Your task to perform on an android device: See recent photos Image 0: 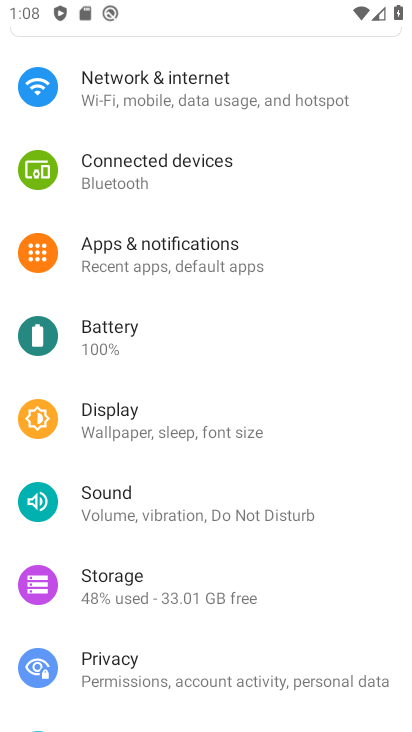
Step 0: press home button
Your task to perform on an android device: See recent photos Image 1: 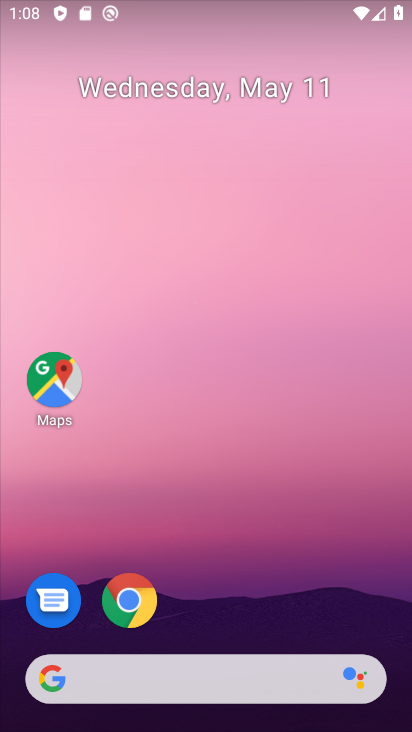
Step 1: drag from (248, 618) to (250, 282)
Your task to perform on an android device: See recent photos Image 2: 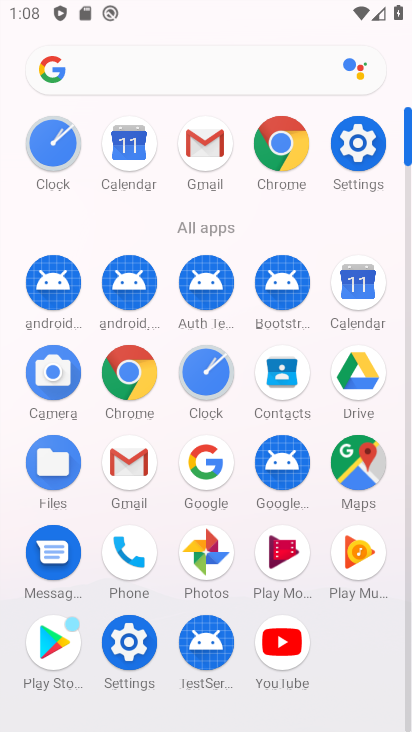
Step 2: click (206, 554)
Your task to perform on an android device: See recent photos Image 3: 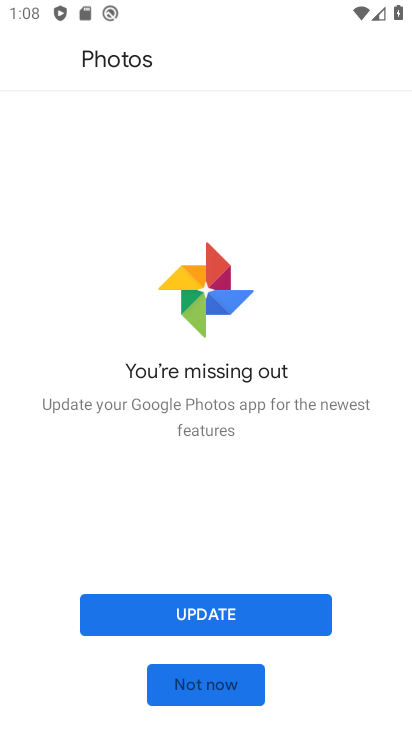
Step 3: click (196, 693)
Your task to perform on an android device: See recent photos Image 4: 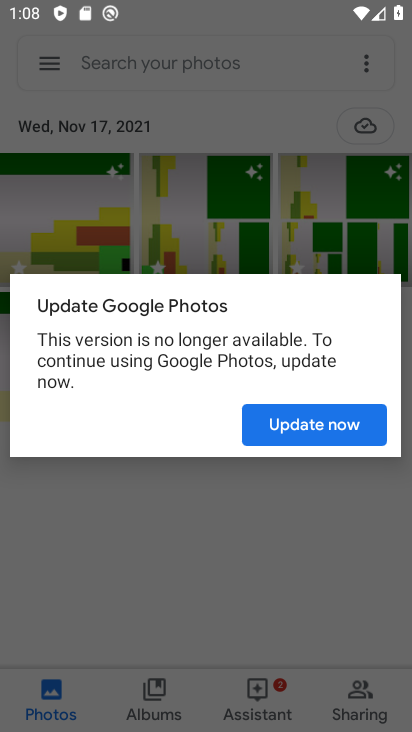
Step 4: click (337, 428)
Your task to perform on an android device: See recent photos Image 5: 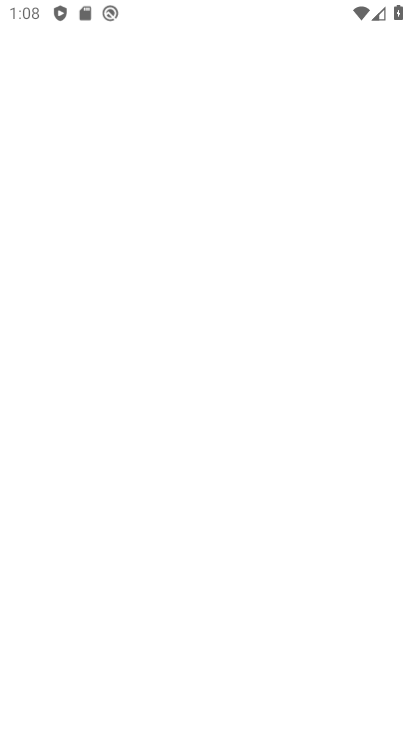
Step 5: press back button
Your task to perform on an android device: See recent photos Image 6: 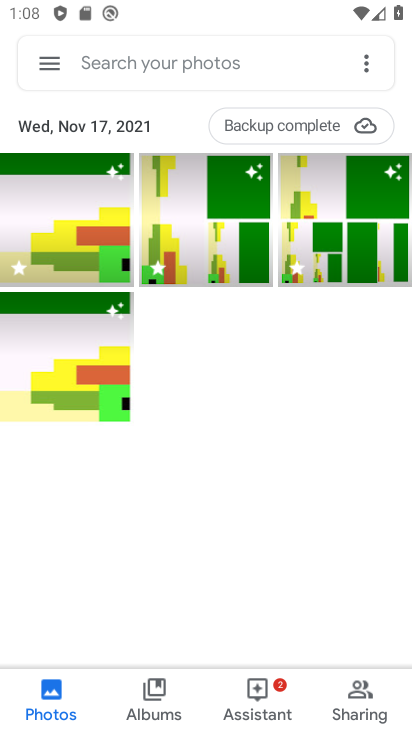
Step 6: click (103, 241)
Your task to perform on an android device: See recent photos Image 7: 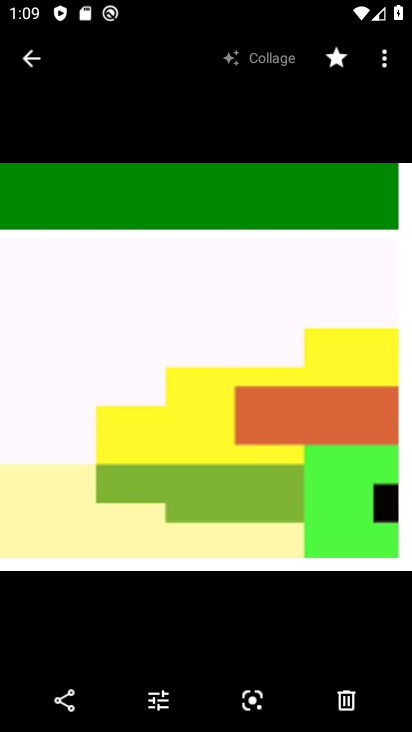
Step 7: task complete